Your task to perform on an android device: Go to battery settings Image 0: 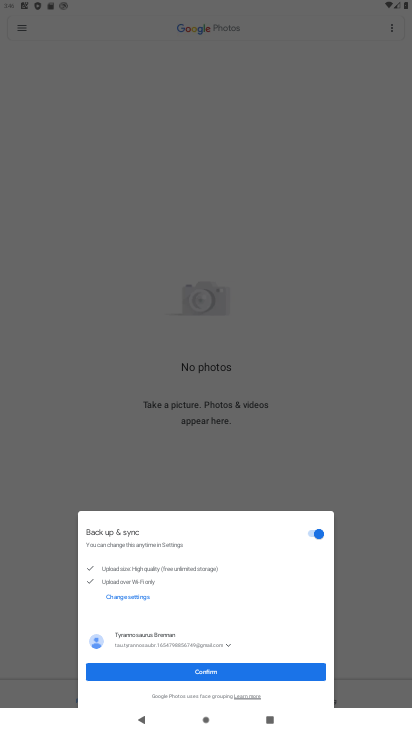
Step 0: drag from (388, 697) to (319, 172)
Your task to perform on an android device: Go to battery settings Image 1: 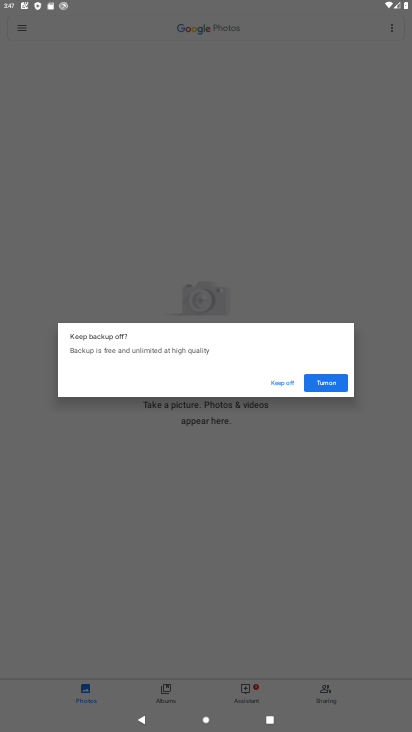
Step 1: press home button
Your task to perform on an android device: Go to battery settings Image 2: 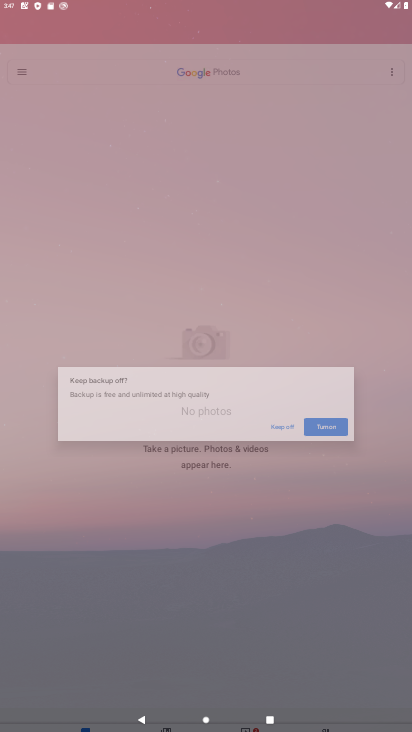
Step 2: drag from (386, 699) to (213, 6)
Your task to perform on an android device: Go to battery settings Image 3: 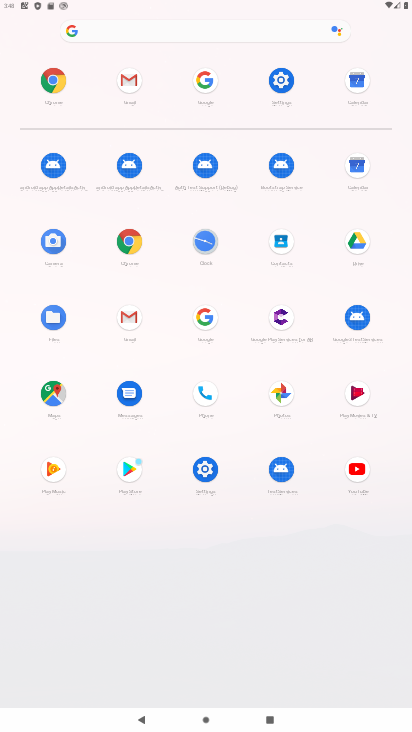
Step 3: click (198, 481)
Your task to perform on an android device: Go to battery settings Image 4: 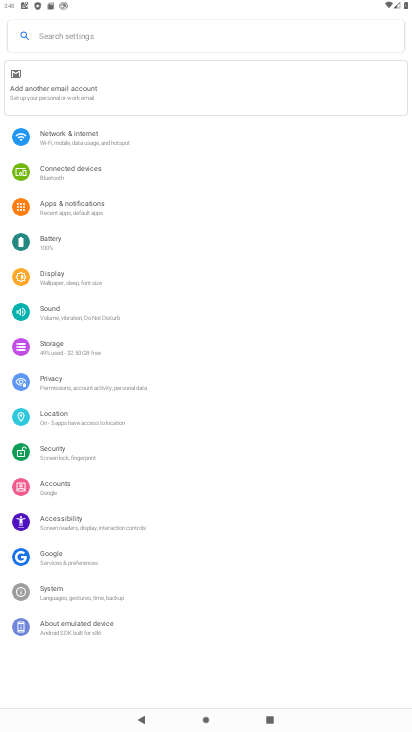
Step 4: click (45, 244)
Your task to perform on an android device: Go to battery settings Image 5: 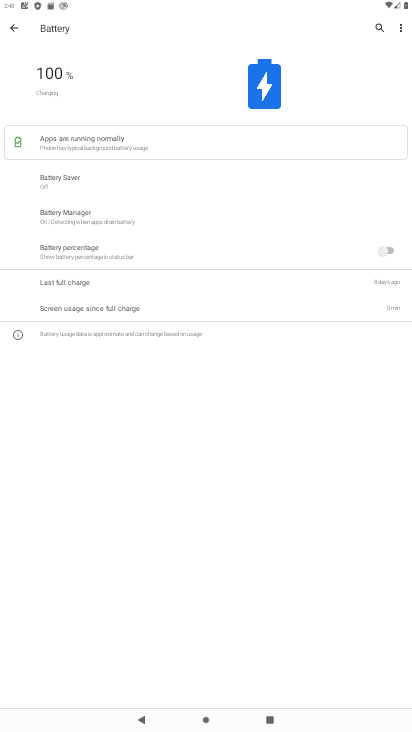
Step 5: task complete